Your task to perform on an android device: turn on data saver in the chrome app Image 0: 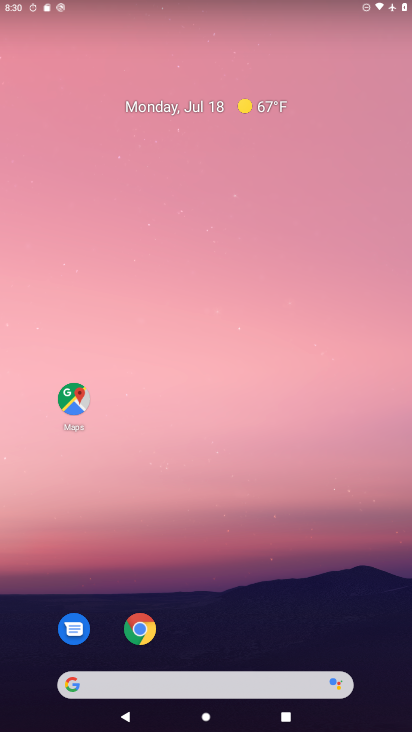
Step 0: drag from (216, 637) to (135, 59)
Your task to perform on an android device: turn on data saver in the chrome app Image 1: 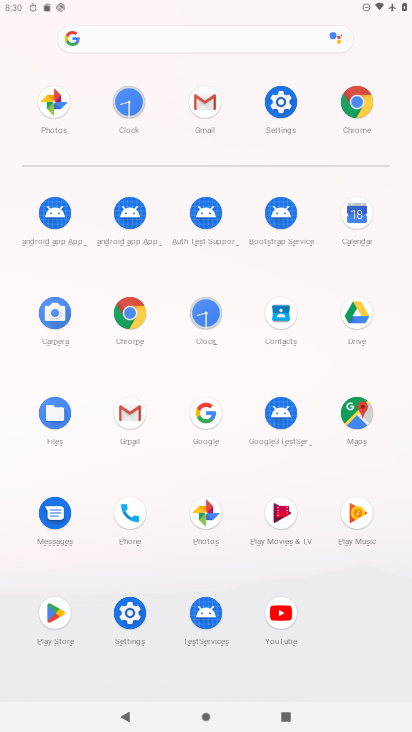
Step 1: click (349, 104)
Your task to perform on an android device: turn on data saver in the chrome app Image 2: 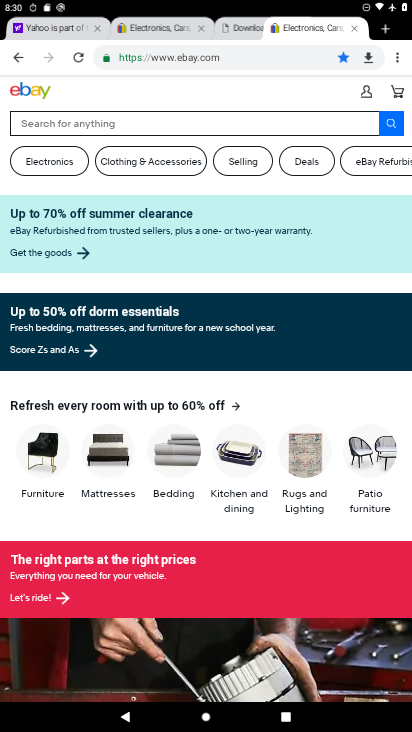
Step 2: drag from (396, 57) to (293, 383)
Your task to perform on an android device: turn on data saver in the chrome app Image 3: 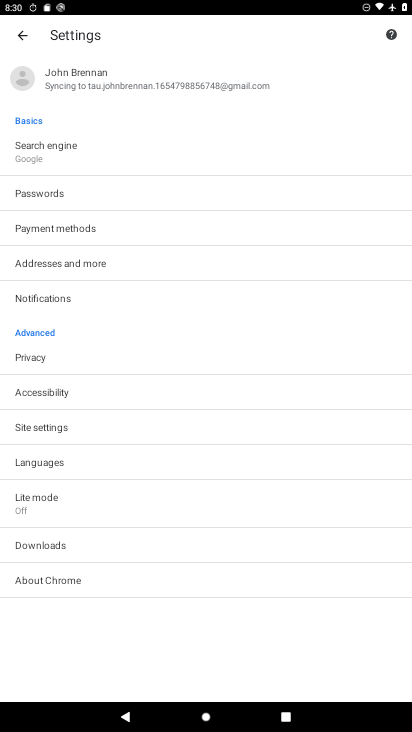
Step 3: click (29, 505)
Your task to perform on an android device: turn on data saver in the chrome app Image 4: 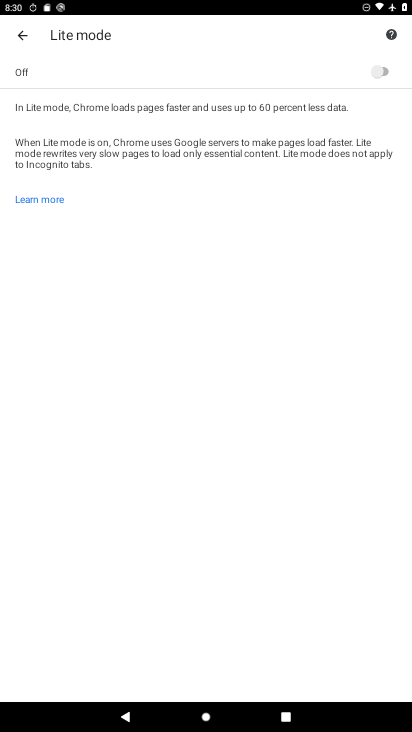
Step 4: click (381, 76)
Your task to perform on an android device: turn on data saver in the chrome app Image 5: 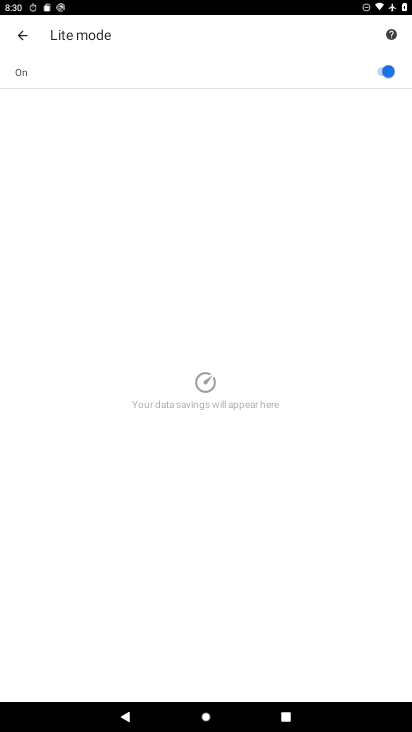
Step 5: task complete